Your task to perform on an android device: Open CNN.com Image 0: 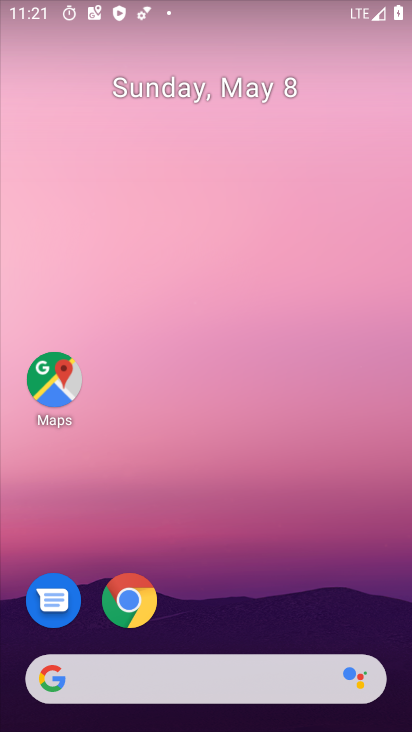
Step 0: click (77, 587)
Your task to perform on an android device: Open CNN.com Image 1: 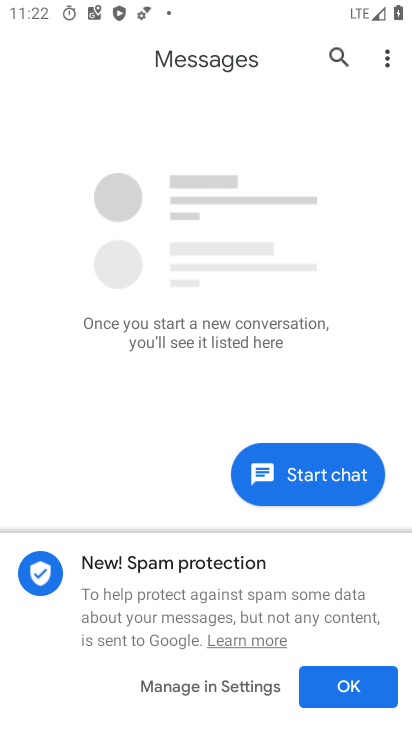
Step 1: press home button
Your task to perform on an android device: Open CNN.com Image 2: 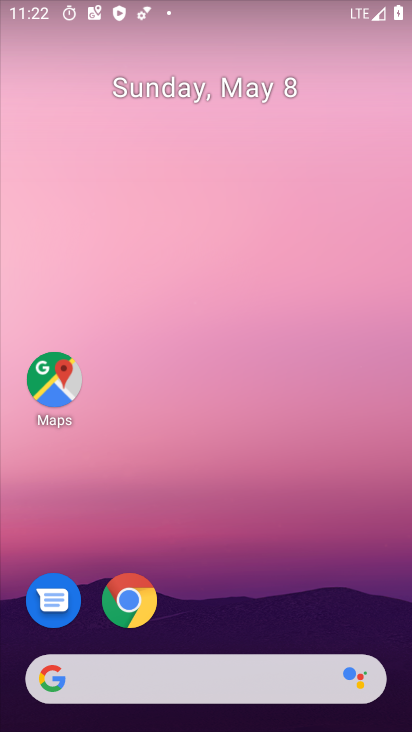
Step 2: click (129, 597)
Your task to perform on an android device: Open CNN.com Image 3: 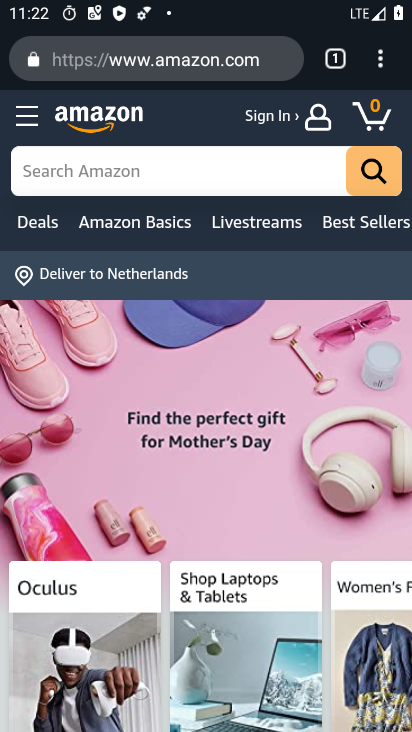
Step 3: click (135, 58)
Your task to perform on an android device: Open CNN.com Image 4: 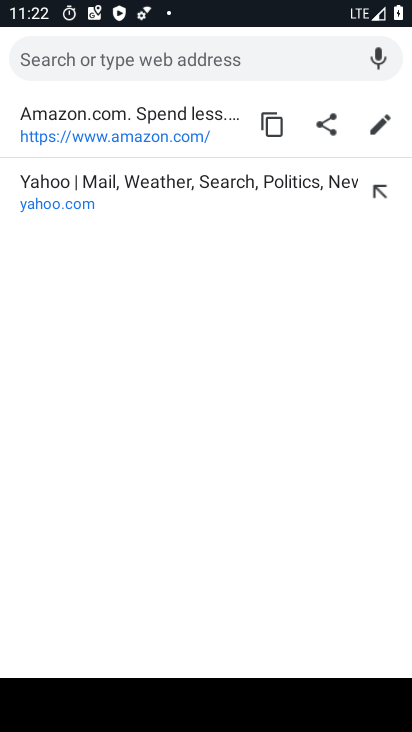
Step 4: type "CNN.com"
Your task to perform on an android device: Open CNN.com Image 5: 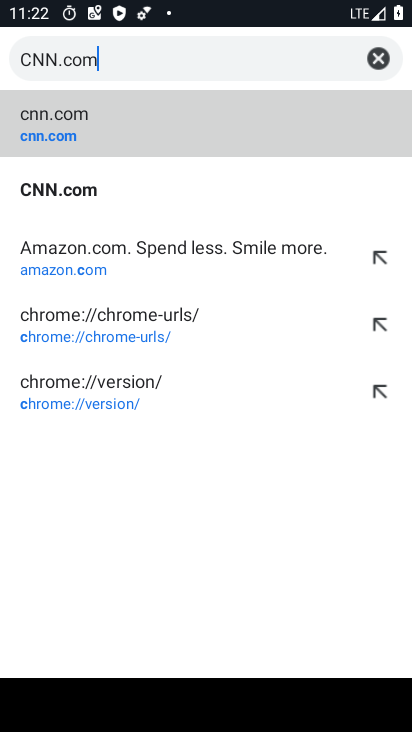
Step 5: type ""
Your task to perform on an android device: Open CNN.com Image 6: 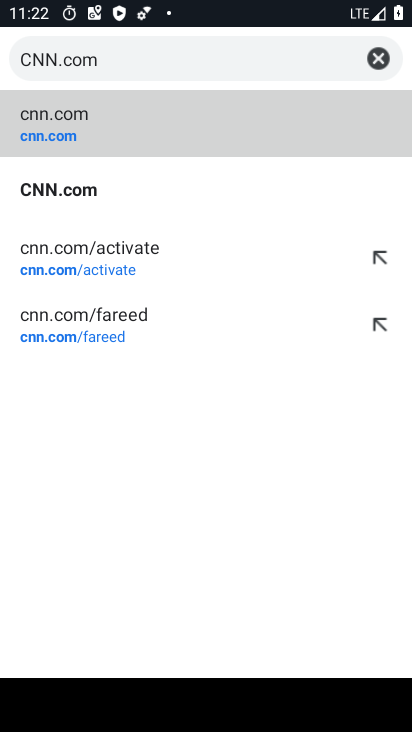
Step 6: click (53, 201)
Your task to perform on an android device: Open CNN.com Image 7: 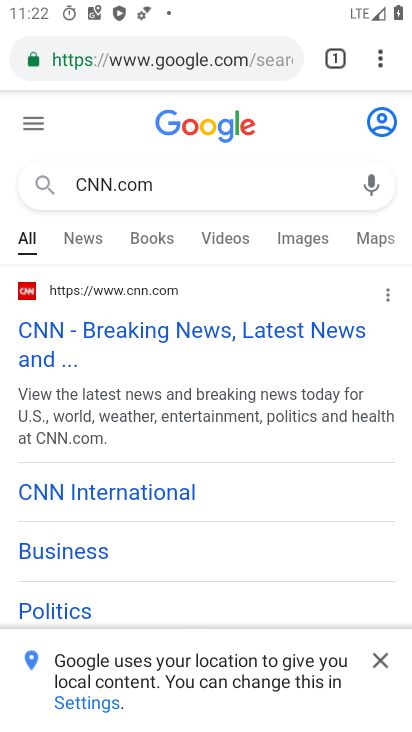
Step 7: task complete